Your task to perform on an android device: Open network settings Image 0: 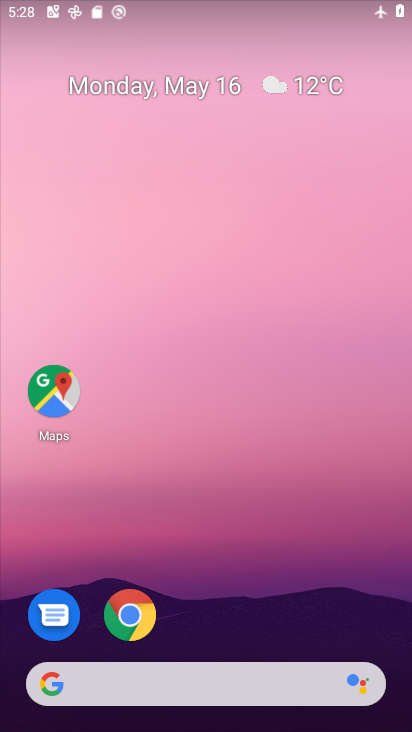
Step 0: drag from (232, 628) to (213, 156)
Your task to perform on an android device: Open network settings Image 1: 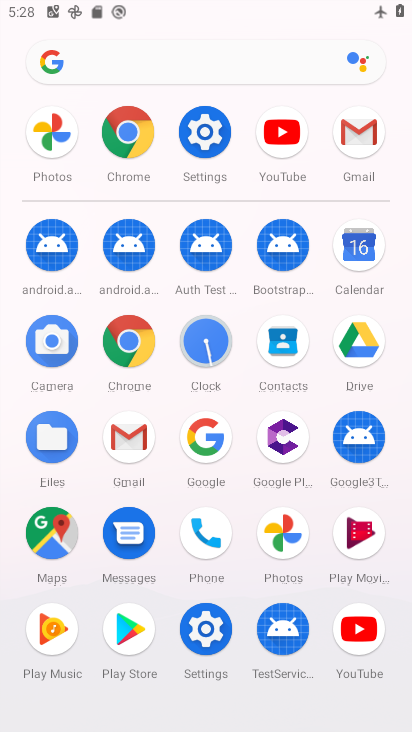
Step 1: click (207, 140)
Your task to perform on an android device: Open network settings Image 2: 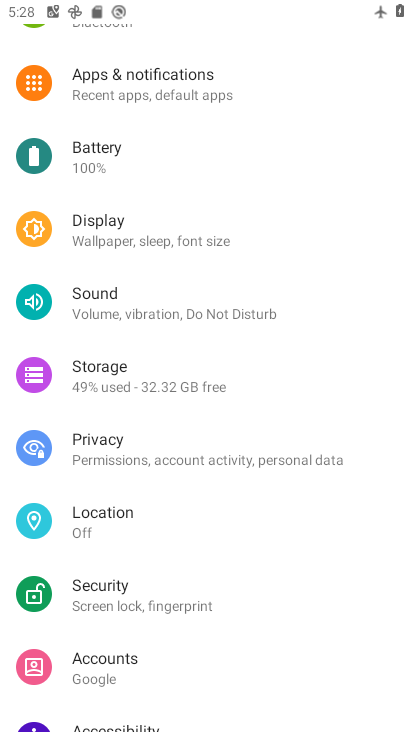
Step 2: drag from (156, 158) to (93, 512)
Your task to perform on an android device: Open network settings Image 3: 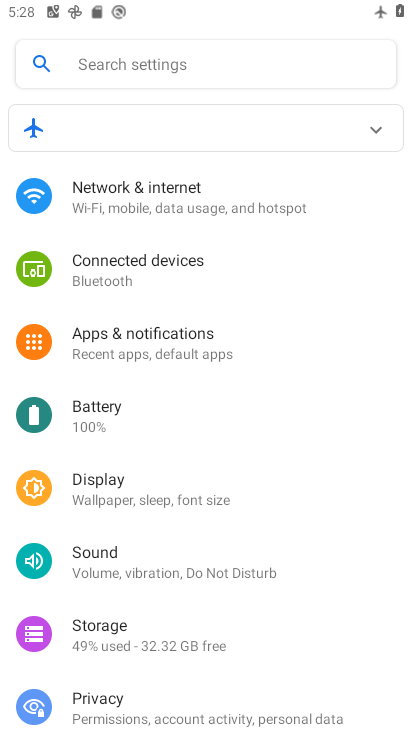
Step 3: click (133, 210)
Your task to perform on an android device: Open network settings Image 4: 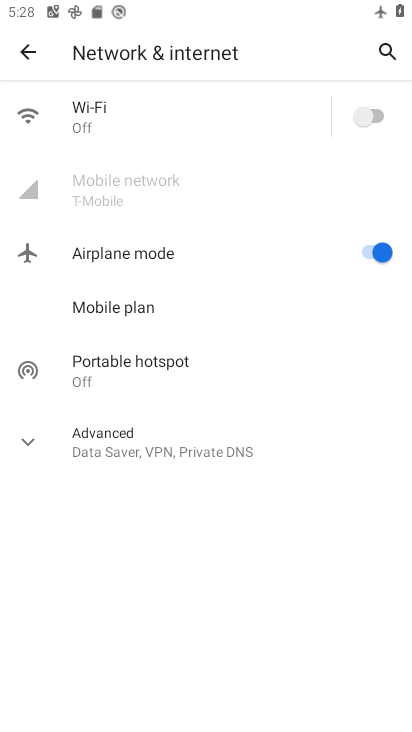
Step 4: task complete